Your task to perform on an android device: check the backup settings in the google photos Image 0: 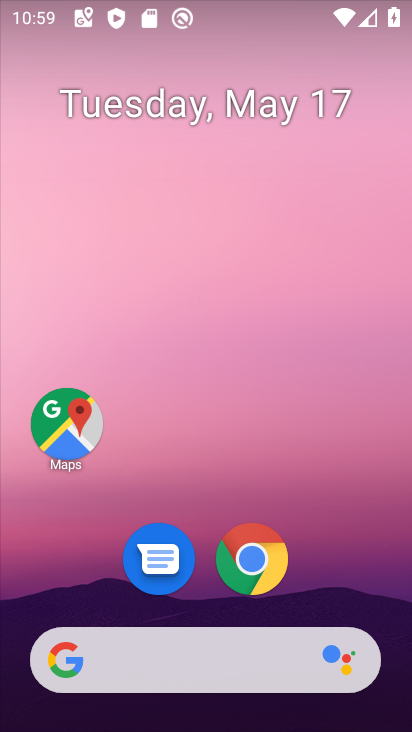
Step 0: drag from (271, 688) to (269, 90)
Your task to perform on an android device: check the backup settings in the google photos Image 1: 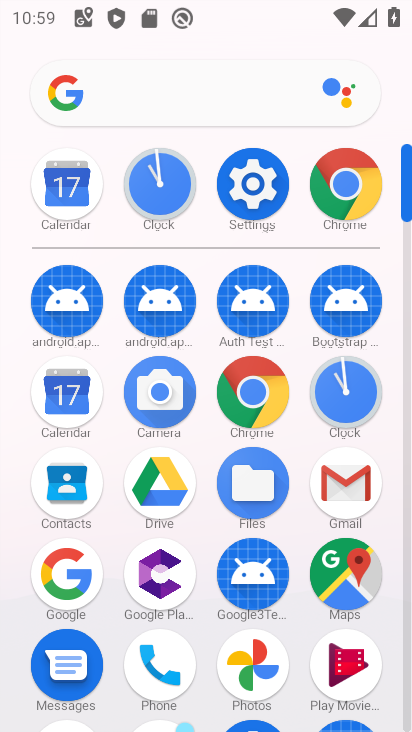
Step 1: click (271, 655)
Your task to perform on an android device: check the backup settings in the google photos Image 2: 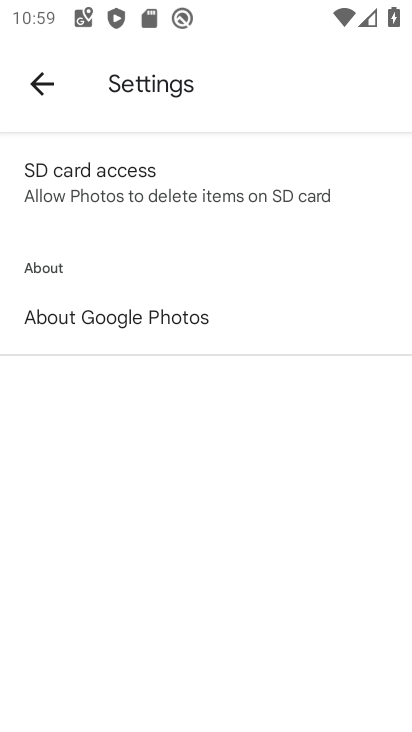
Step 2: click (39, 82)
Your task to perform on an android device: check the backup settings in the google photos Image 3: 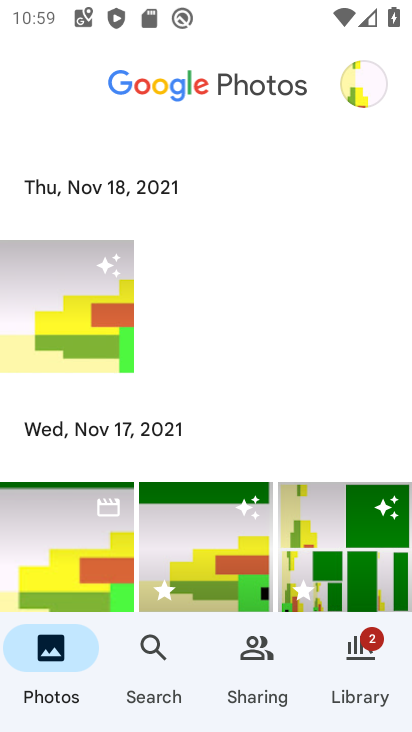
Step 3: click (354, 66)
Your task to perform on an android device: check the backup settings in the google photos Image 4: 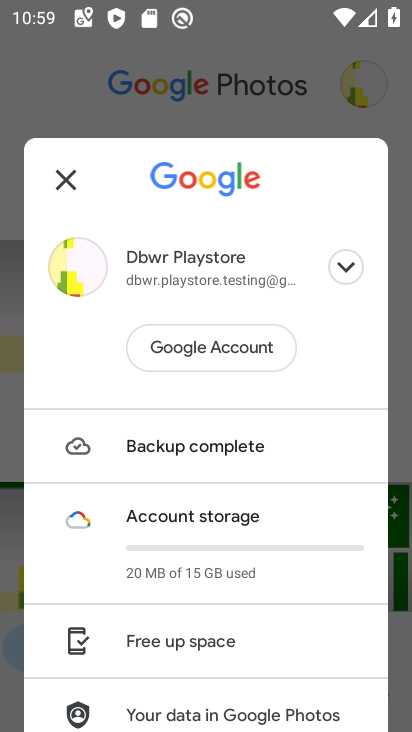
Step 4: drag from (290, 568) to (263, 35)
Your task to perform on an android device: check the backup settings in the google photos Image 5: 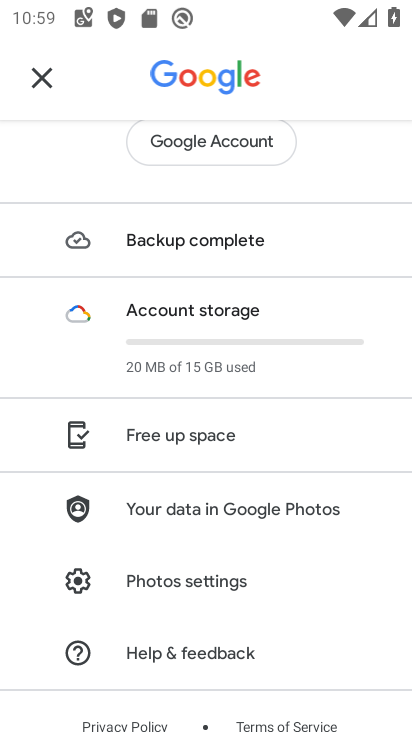
Step 5: click (206, 568)
Your task to perform on an android device: check the backup settings in the google photos Image 6: 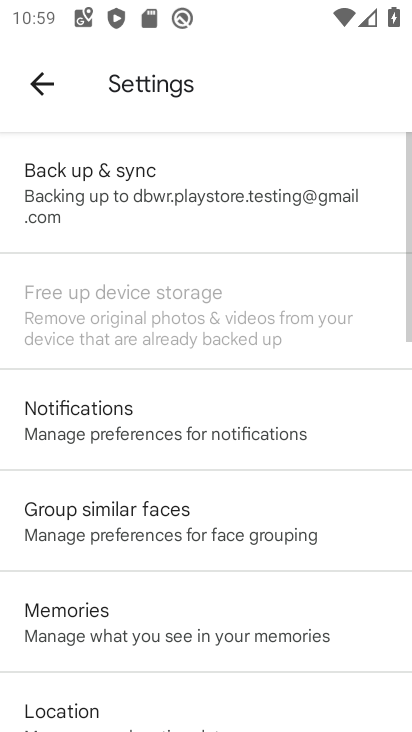
Step 6: click (260, 202)
Your task to perform on an android device: check the backup settings in the google photos Image 7: 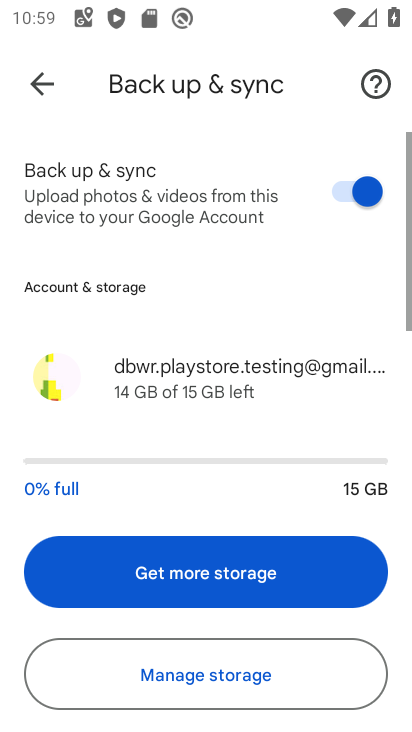
Step 7: task complete